Your task to perform on an android device: all mails in gmail Image 0: 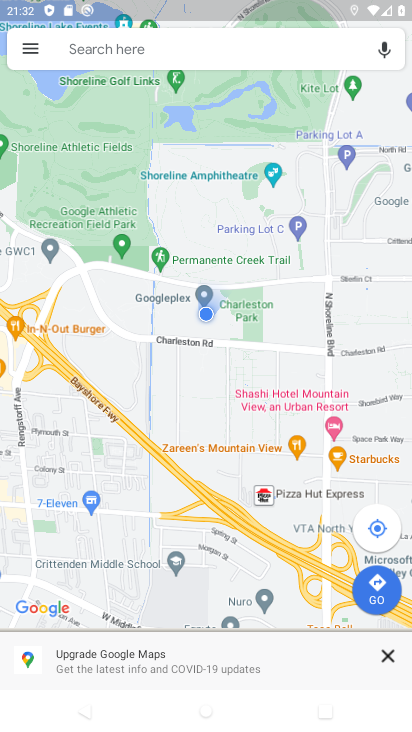
Step 0: press back button
Your task to perform on an android device: all mails in gmail Image 1: 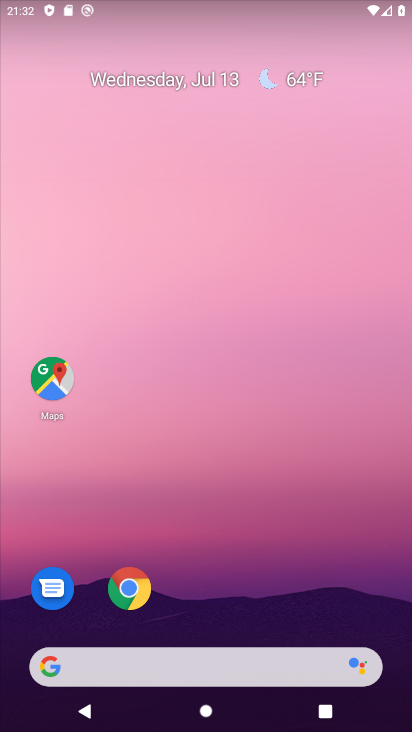
Step 1: drag from (222, 592) to (278, 208)
Your task to perform on an android device: all mails in gmail Image 2: 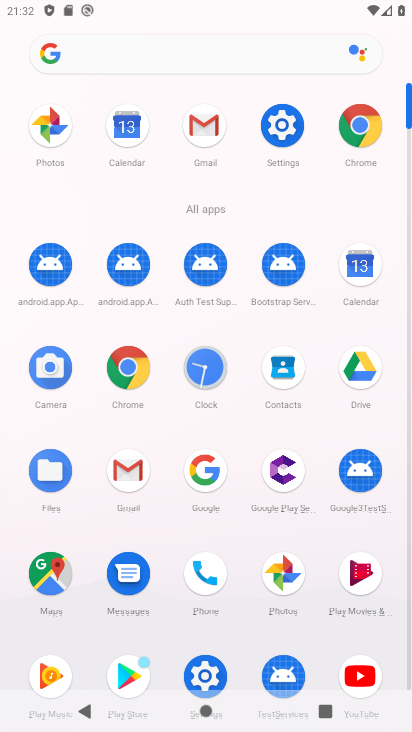
Step 2: click (202, 122)
Your task to perform on an android device: all mails in gmail Image 3: 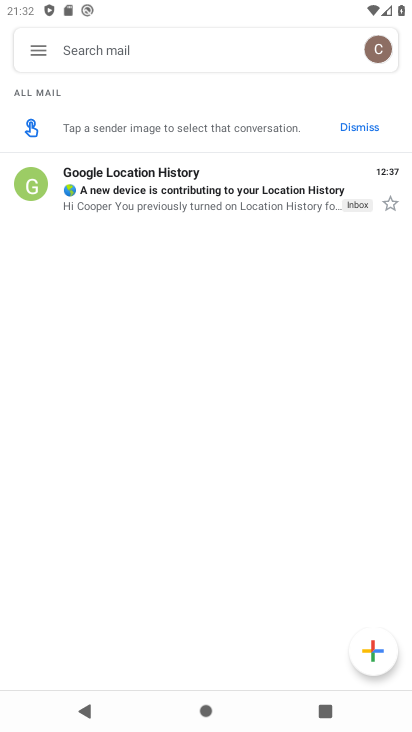
Step 3: click (38, 43)
Your task to perform on an android device: all mails in gmail Image 4: 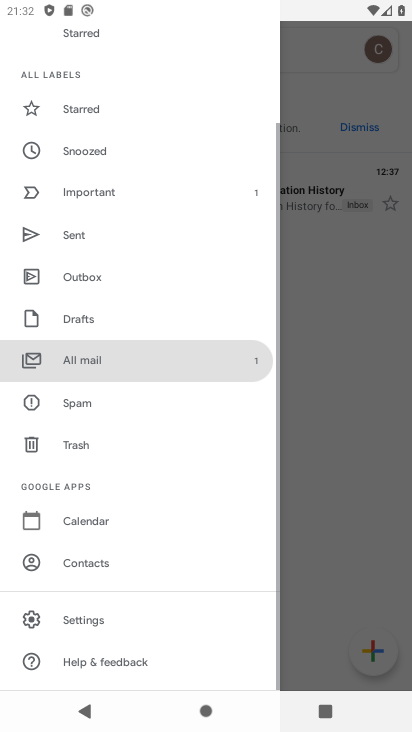
Step 4: click (148, 364)
Your task to perform on an android device: all mails in gmail Image 5: 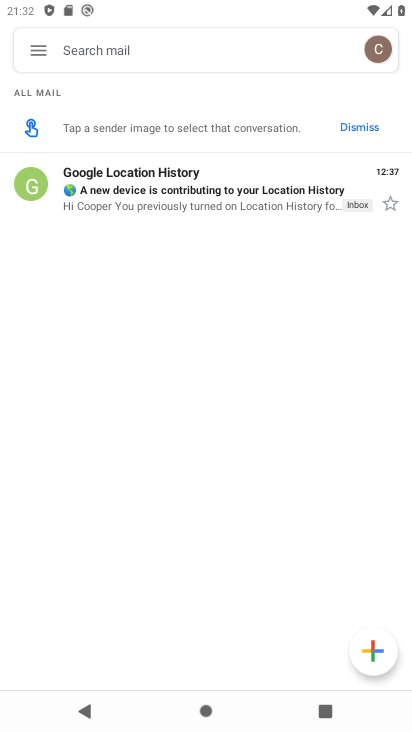
Step 5: task complete